Your task to perform on an android device: open app "Spotify" Image 0: 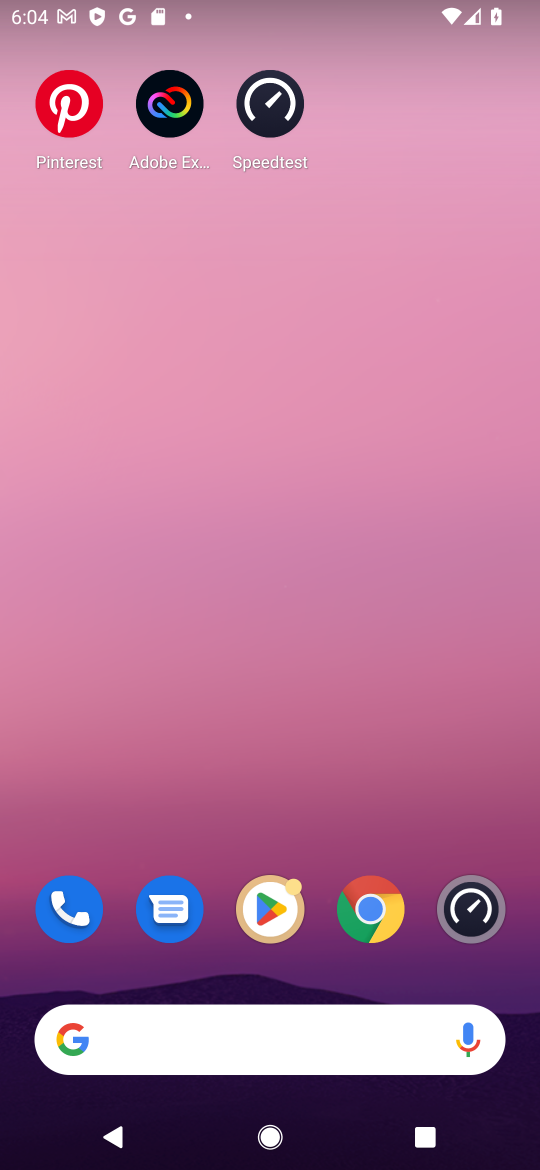
Step 0: drag from (321, 854) to (330, 227)
Your task to perform on an android device: open app "Spotify" Image 1: 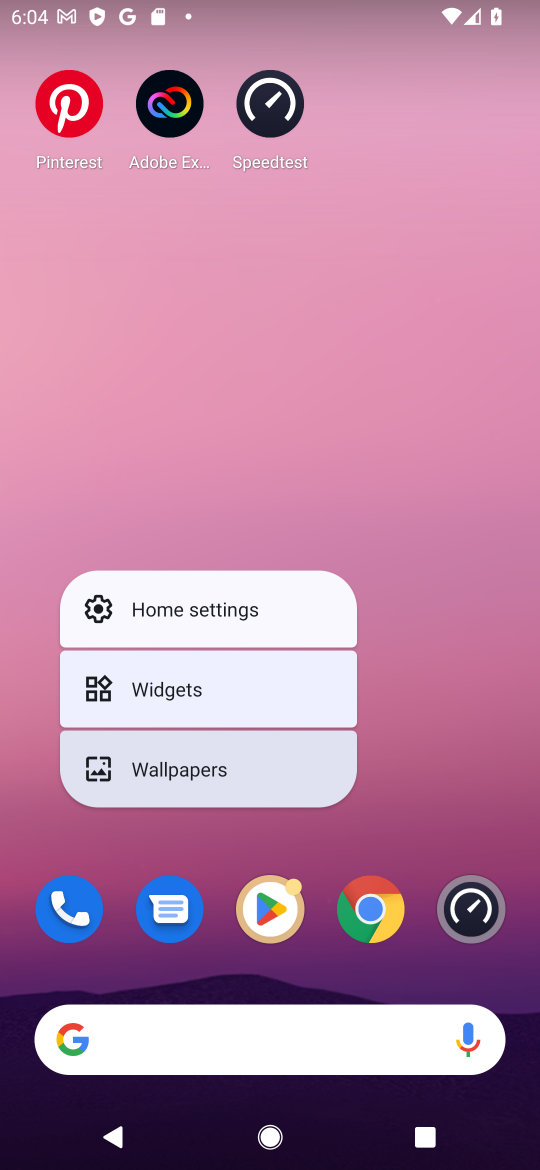
Step 1: click (303, 933)
Your task to perform on an android device: open app "Spotify" Image 2: 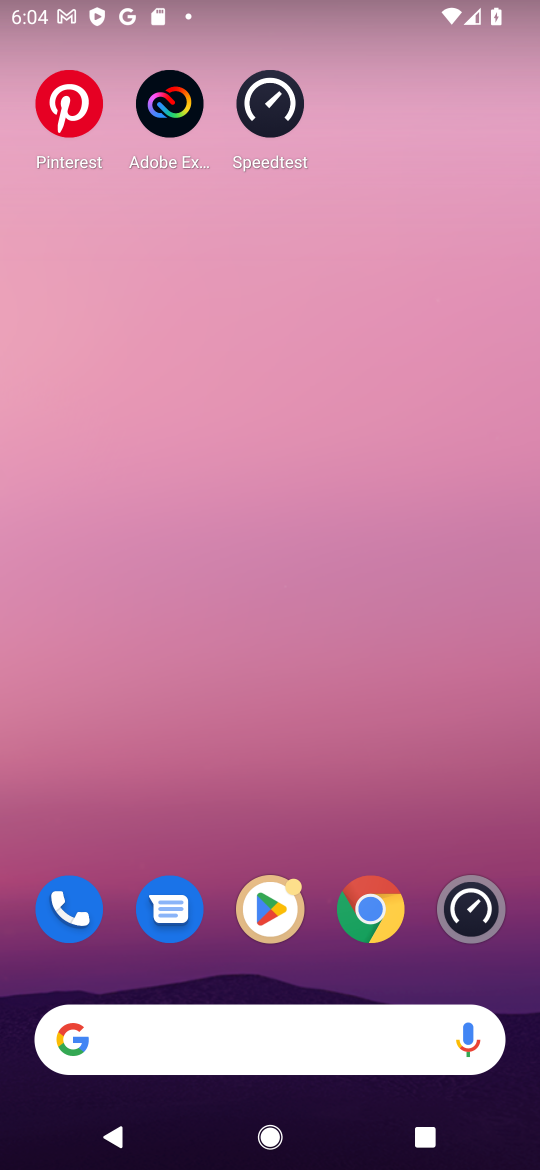
Step 2: click (261, 914)
Your task to perform on an android device: open app "Spotify" Image 3: 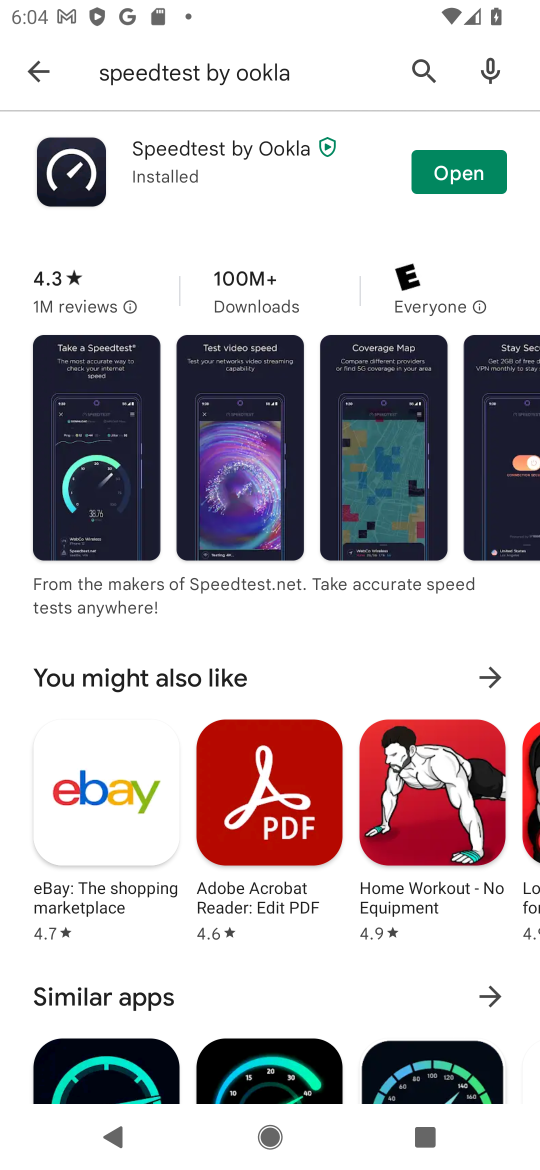
Step 3: click (422, 78)
Your task to perform on an android device: open app "Spotify" Image 4: 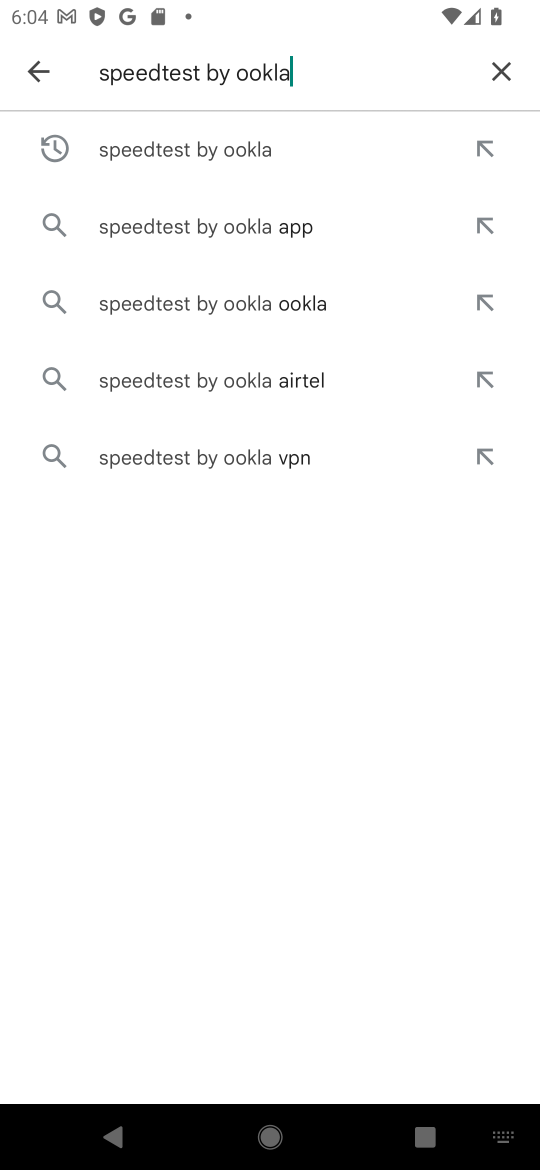
Step 4: click (500, 75)
Your task to perform on an android device: open app "Spotify" Image 5: 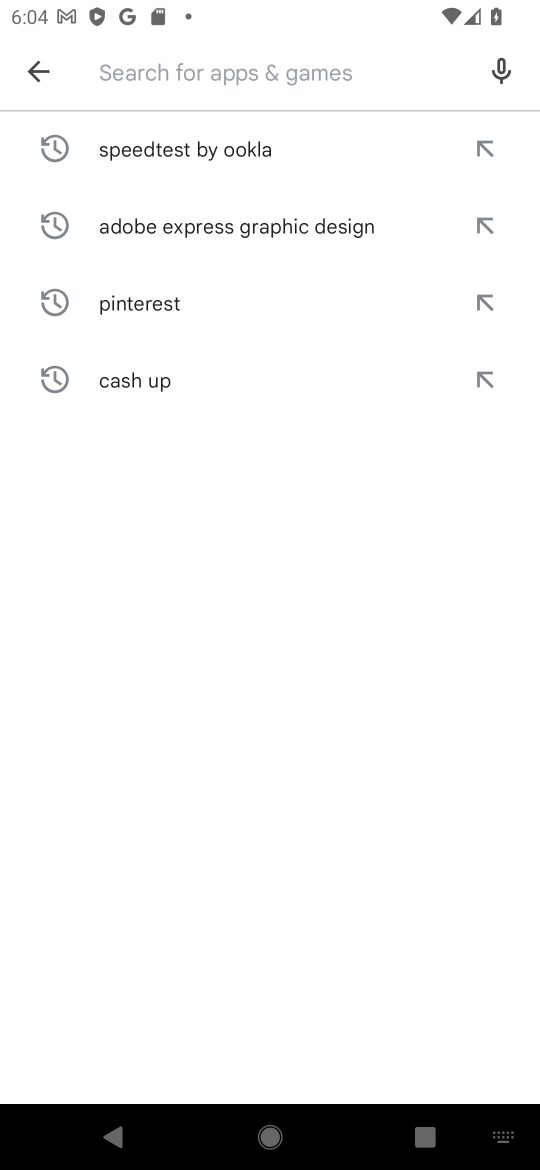
Step 5: type "spotify"
Your task to perform on an android device: open app "Spotify" Image 6: 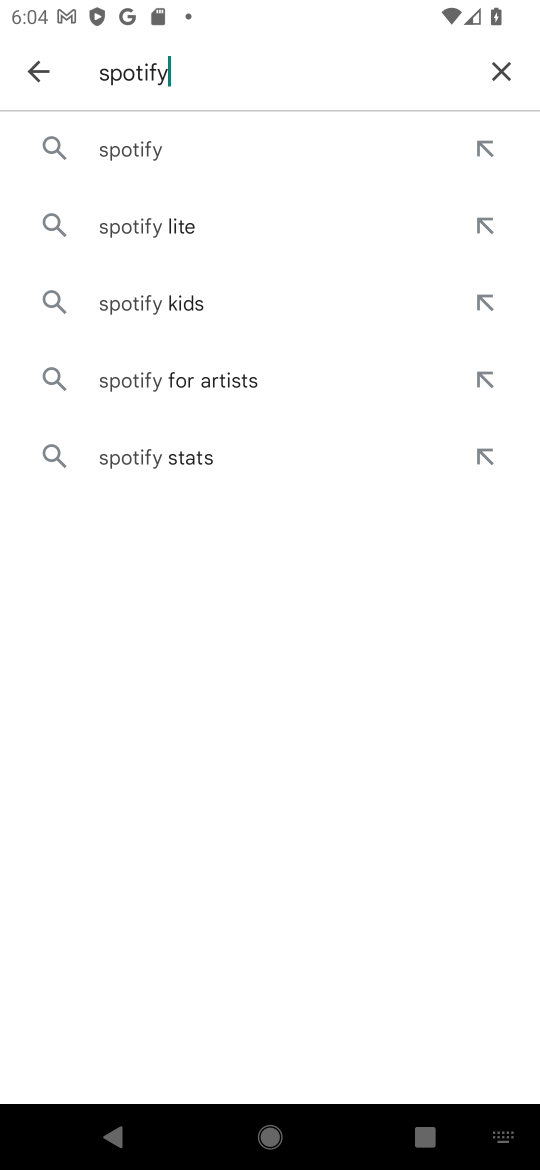
Step 6: click (193, 131)
Your task to perform on an android device: open app "Spotify" Image 7: 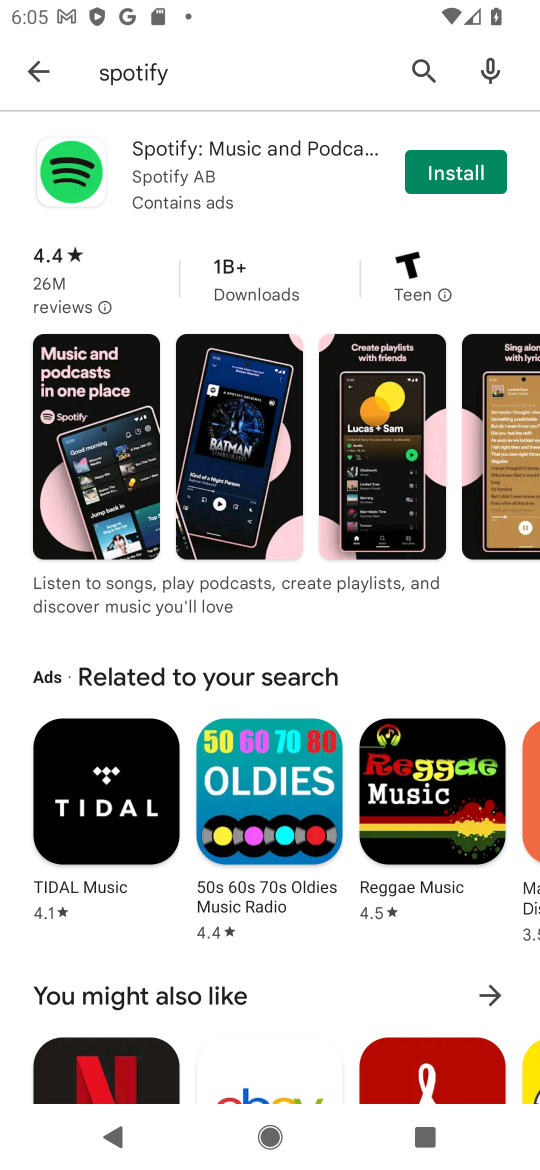
Step 7: click (288, 186)
Your task to perform on an android device: open app "Spotify" Image 8: 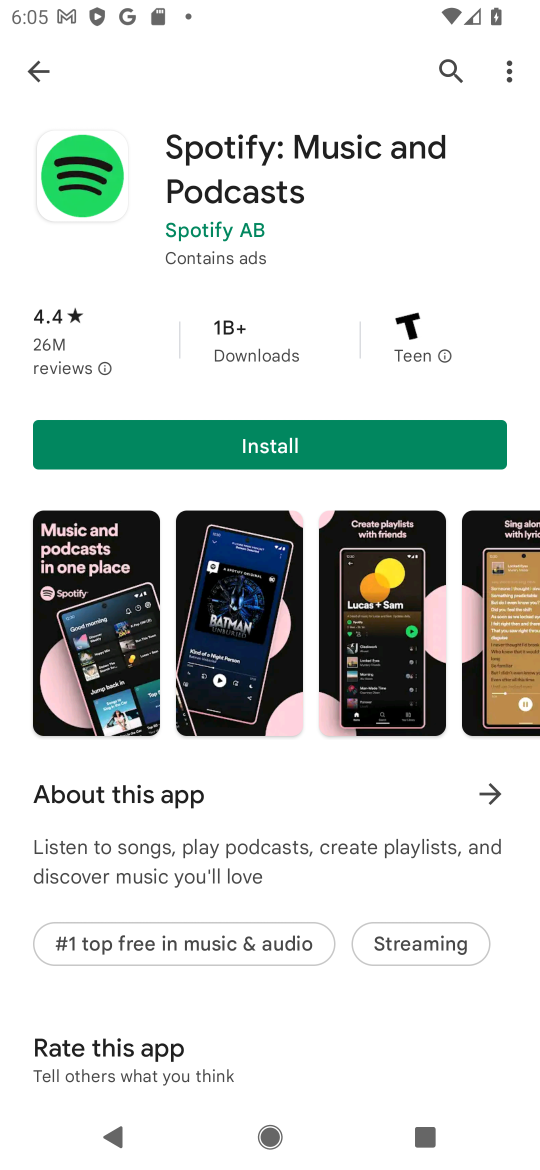
Step 8: task complete